Your task to perform on an android device: Search for seafood restaurants on Google Maps Image 0: 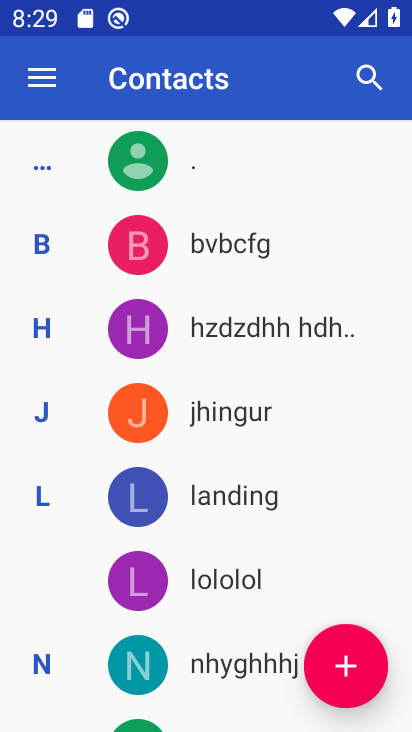
Step 0: press home button
Your task to perform on an android device: Search for seafood restaurants on Google Maps Image 1: 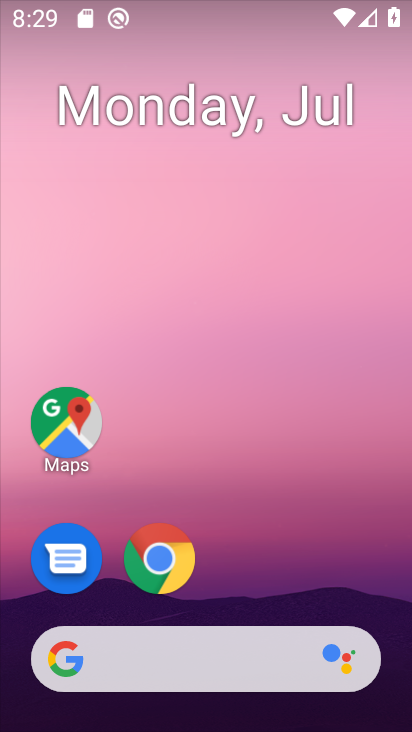
Step 1: drag from (302, 576) to (321, 144)
Your task to perform on an android device: Search for seafood restaurants on Google Maps Image 2: 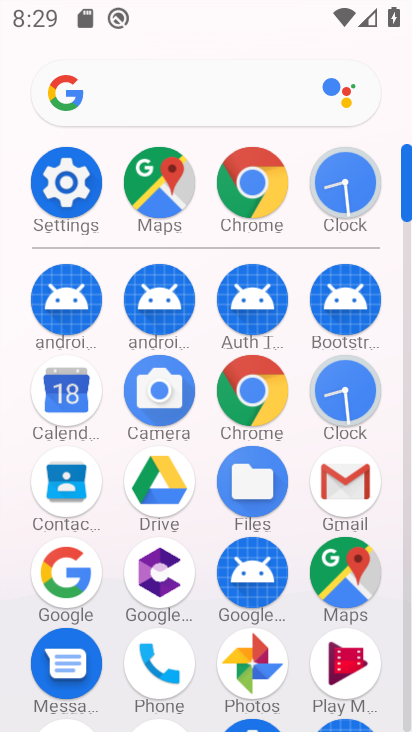
Step 2: click (351, 568)
Your task to perform on an android device: Search for seafood restaurants on Google Maps Image 3: 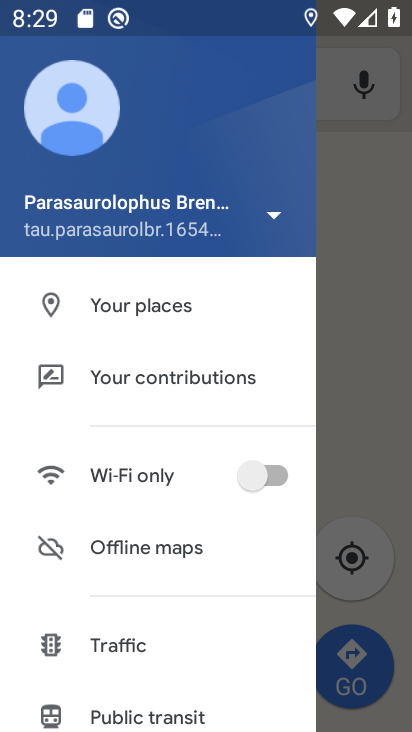
Step 3: press back button
Your task to perform on an android device: Search for seafood restaurants on Google Maps Image 4: 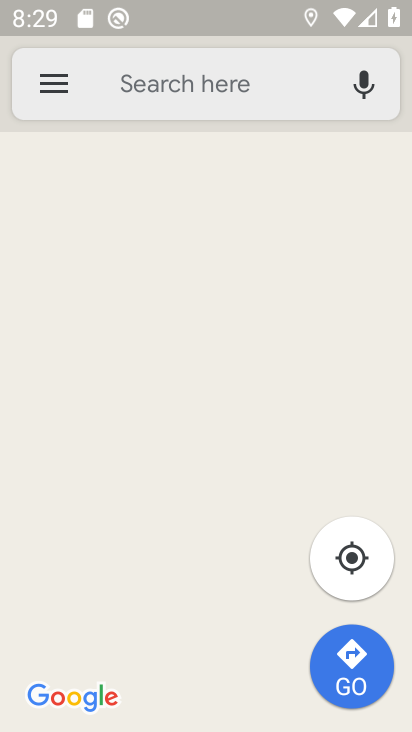
Step 4: click (230, 92)
Your task to perform on an android device: Search for seafood restaurants on Google Maps Image 5: 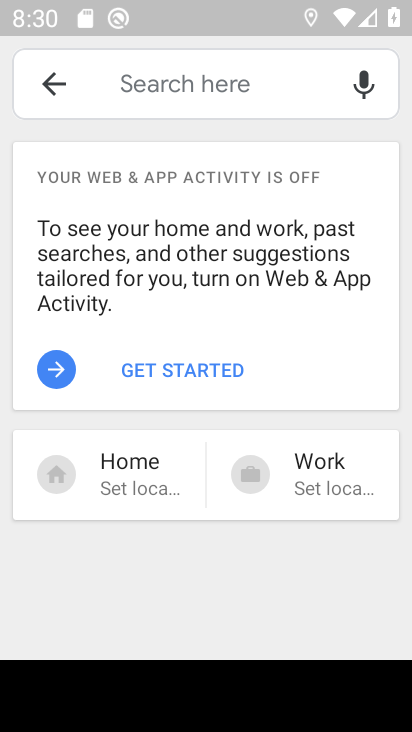
Step 5: type "seafood restaurants"
Your task to perform on an android device: Search for seafood restaurants on Google Maps Image 6: 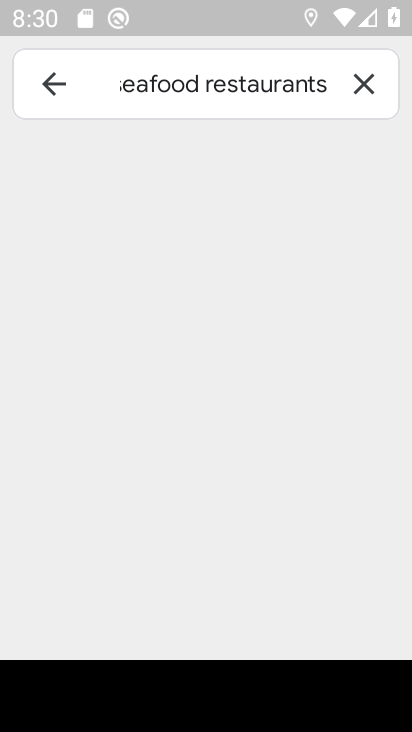
Step 6: task complete